Your task to perform on an android device: Open maps Image 0: 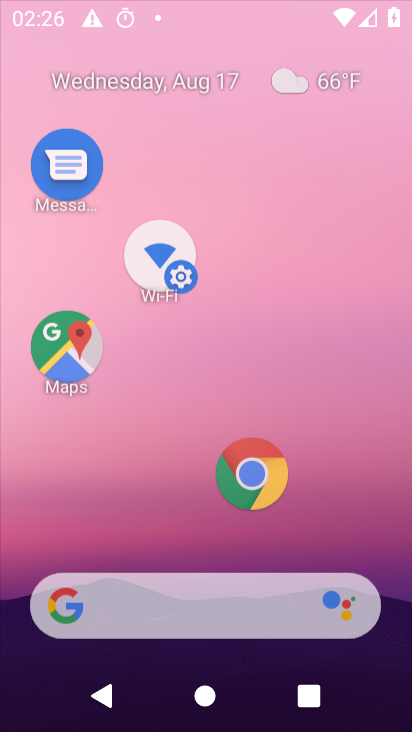
Step 0: press home button
Your task to perform on an android device: Open maps Image 1: 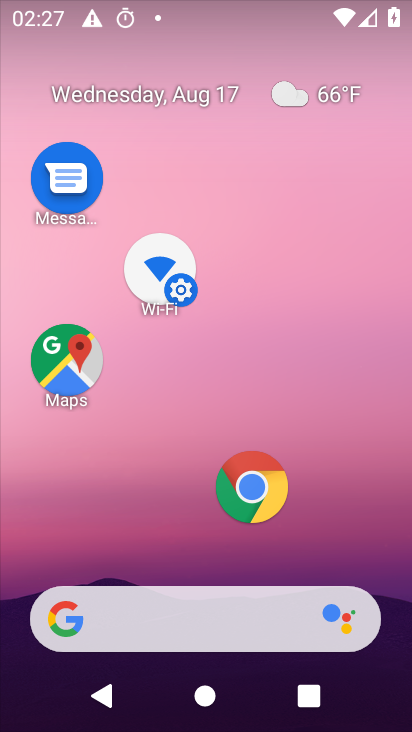
Step 1: click (69, 376)
Your task to perform on an android device: Open maps Image 2: 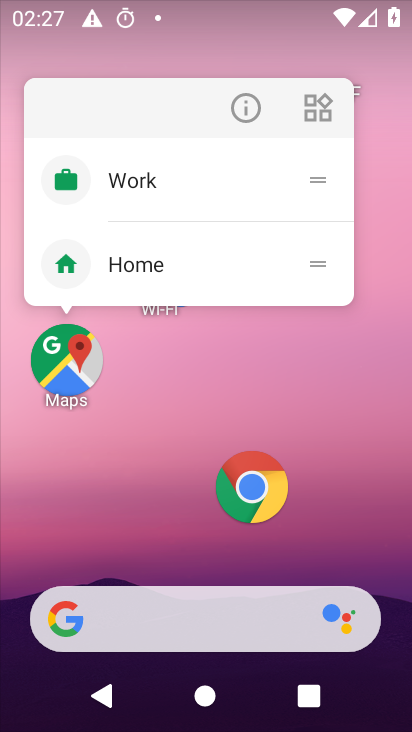
Step 2: click (69, 376)
Your task to perform on an android device: Open maps Image 3: 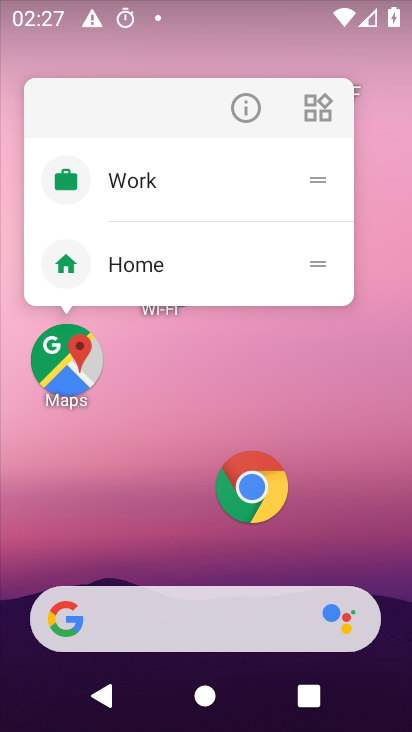
Step 3: click (58, 369)
Your task to perform on an android device: Open maps Image 4: 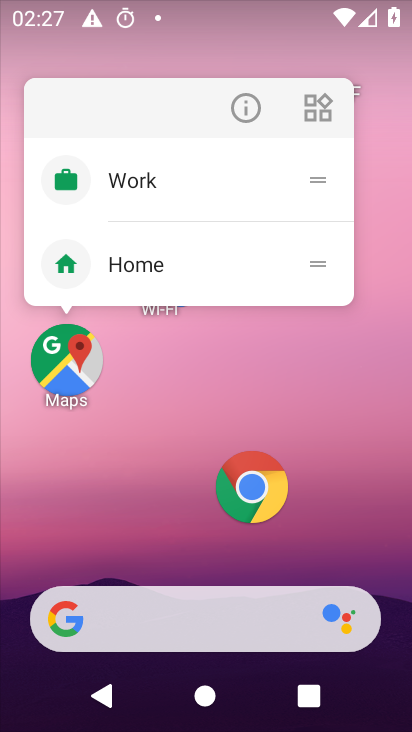
Step 4: click (58, 369)
Your task to perform on an android device: Open maps Image 5: 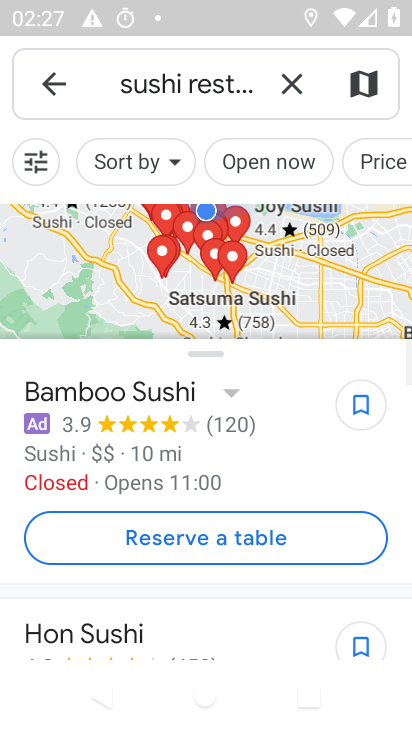
Step 5: task complete